Your task to perform on an android device: toggle wifi Image 0: 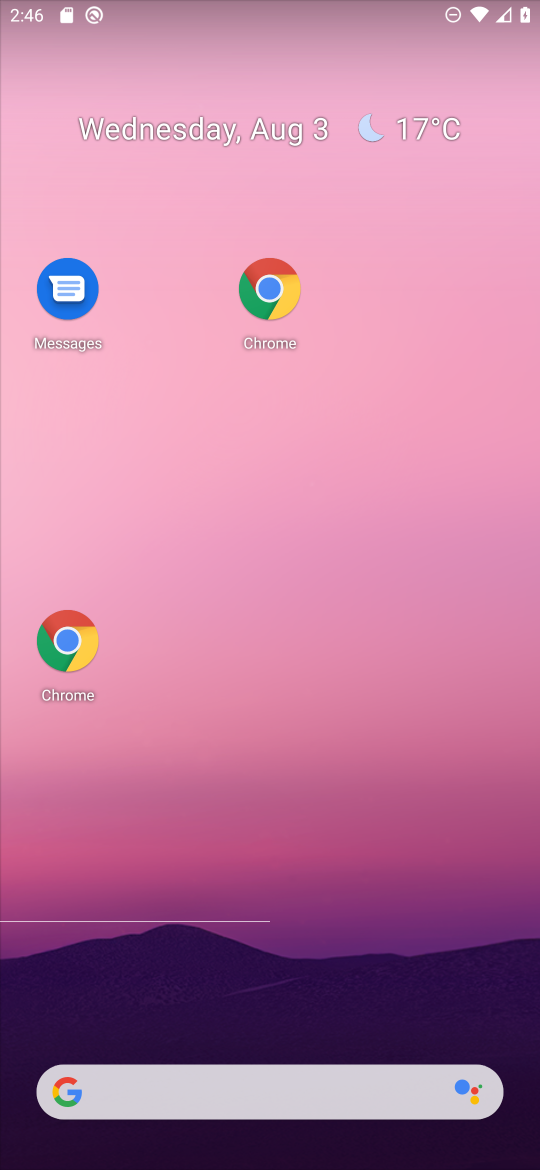
Step 0: drag from (348, 352) to (371, 103)
Your task to perform on an android device: toggle wifi Image 1: 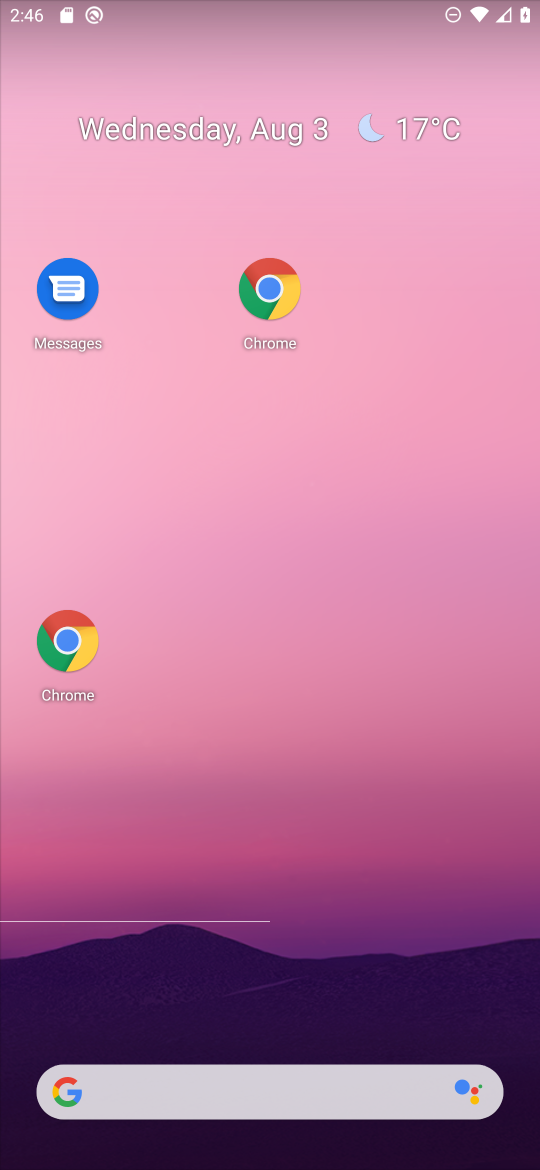
Step 1: drag from (364, 977) to (289, 107)
Your task to perform on an android device: toggle wifi Image 2: 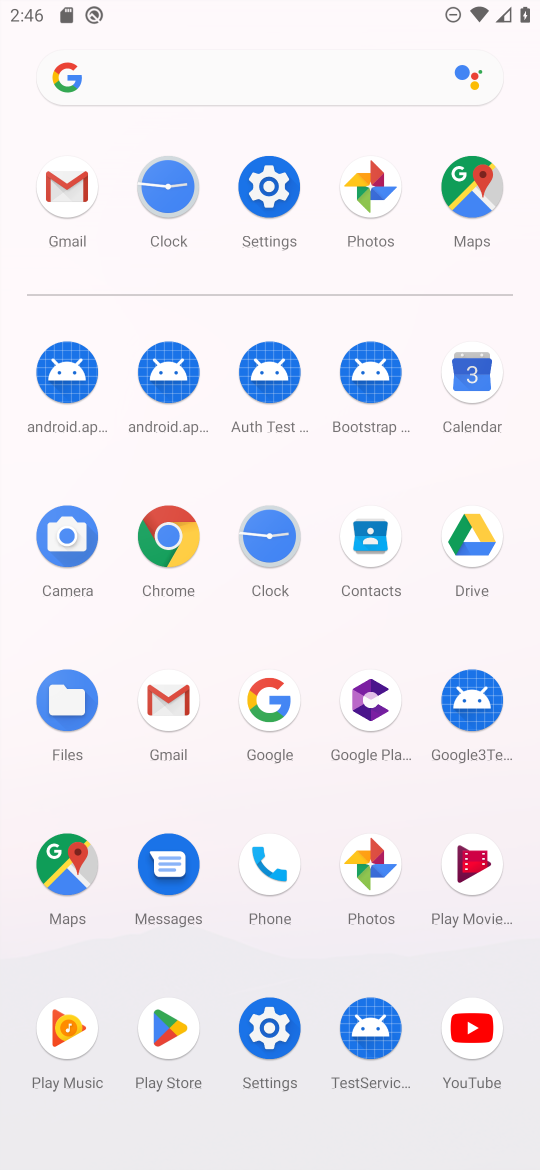
Step 2: click (272, 231)
Your task to perform on an android device: toggle wifi Image 3: 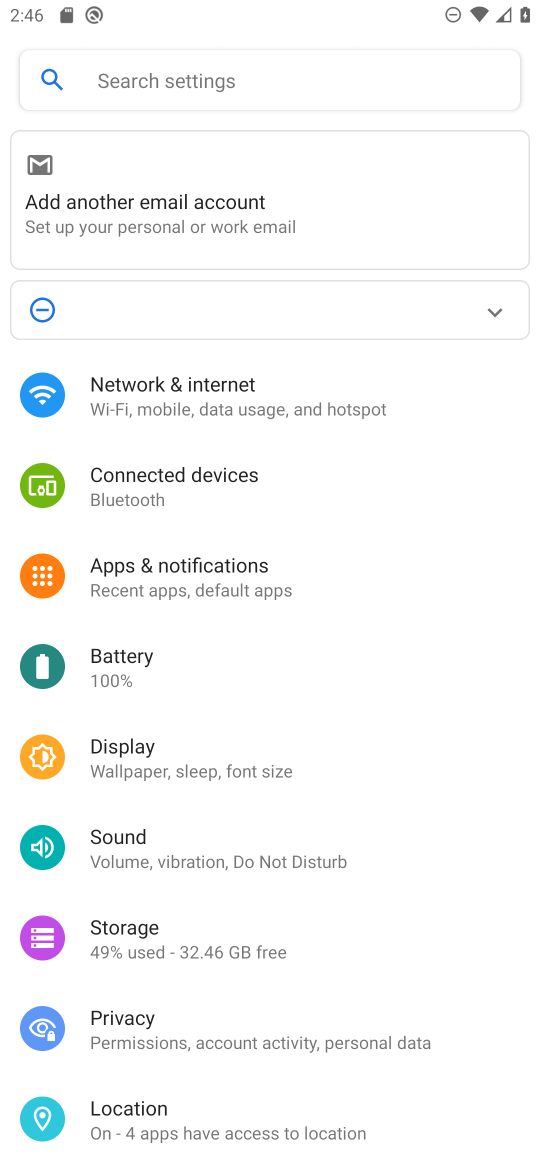
Step 3: click (272, 382)
Your task to perform on an android device: toggle wifi Image 4: 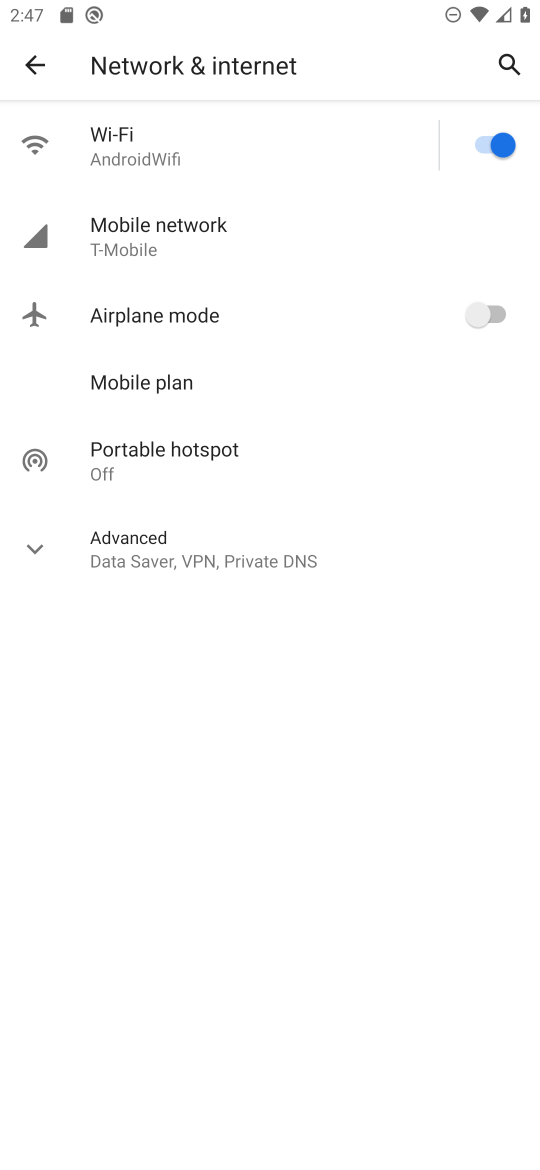
Step 4: click (442, 152)
Your task to perform on an android device: toggle wifi Image 5: 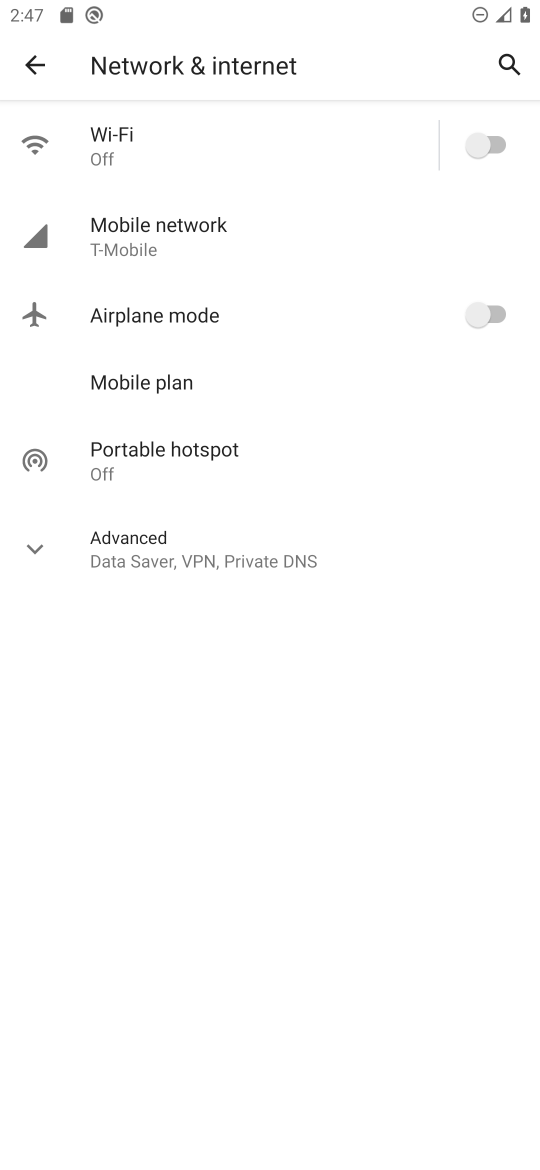
Step 5: task complete